Your task to perform on an android device: turn off smart reply in the gmail app Image 0: 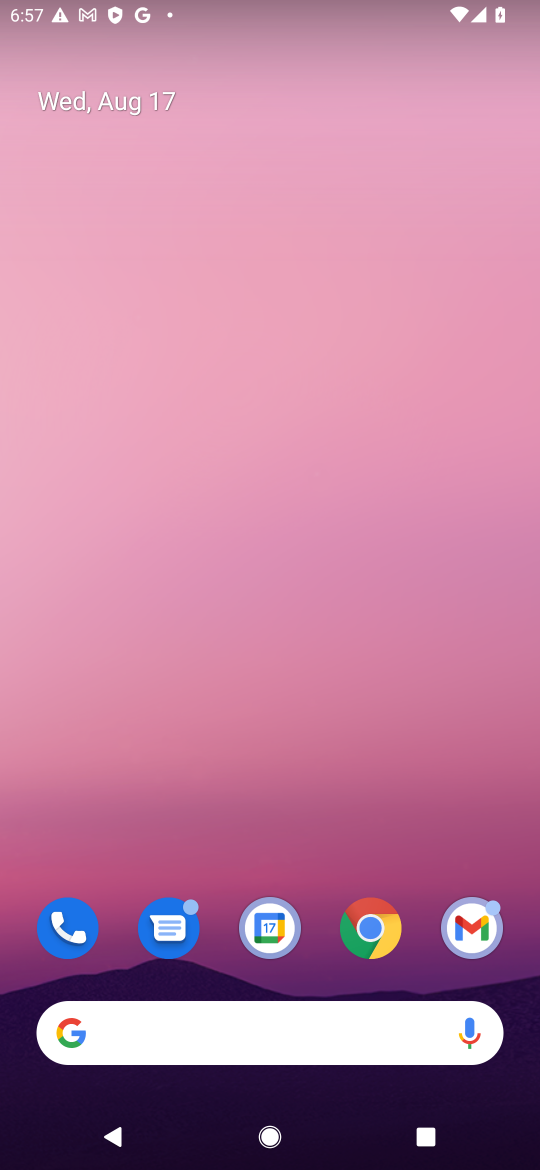
Step 0: click (502, 924)
Your task to perform on an android device: turn off smart reply in the gmail app Image 1: 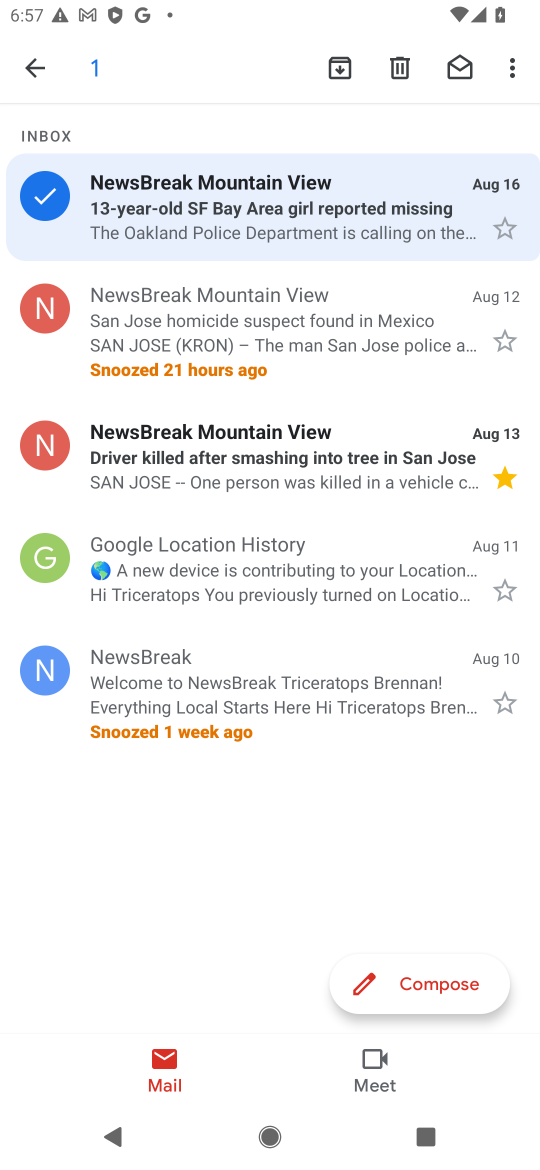
Step 1: click (45, 64)
Your task to perform on an android device: turn off smart reply in the gmail app Image 2: 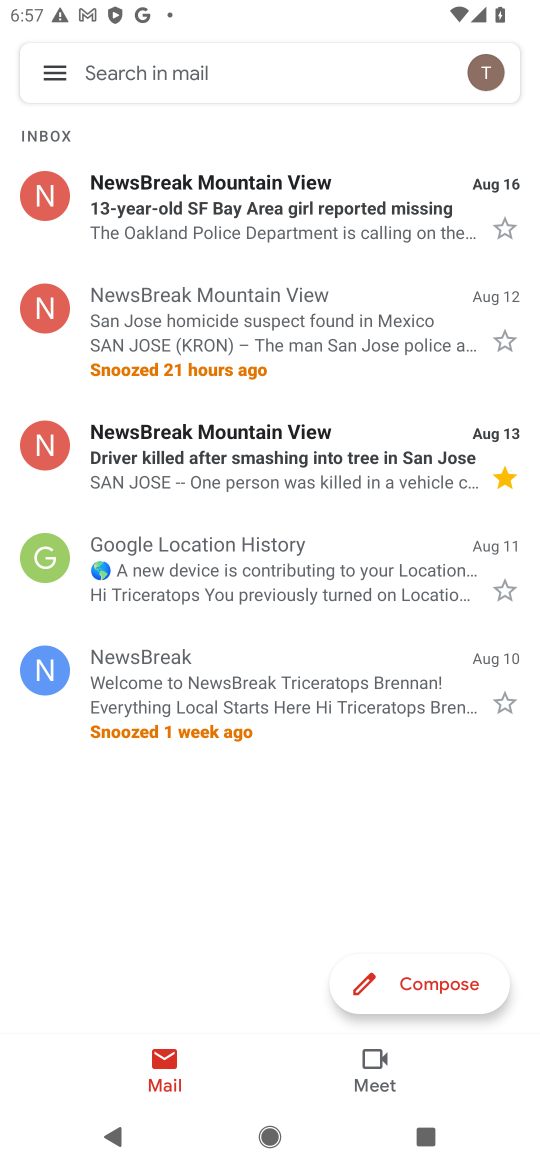
Step 2: click (45, 64)
Your task to perform on an android device: turn off smart reply in the gmail app Image 3: 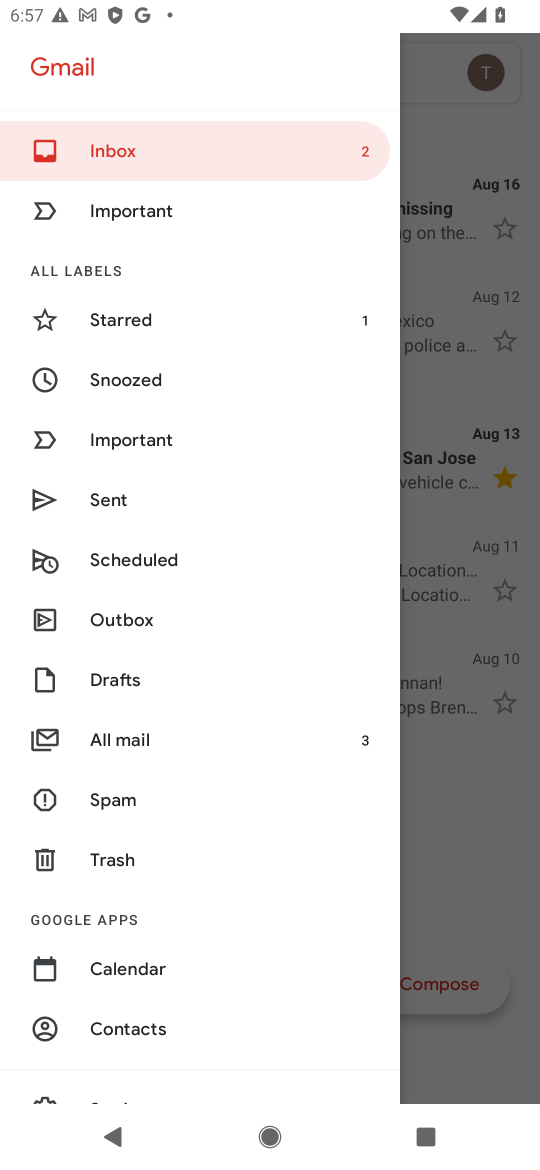
Step 3: drag from (164, 957) to (173, 425)
Your task to perform on an android device: turn off smart reply in the gmail app Image 4: 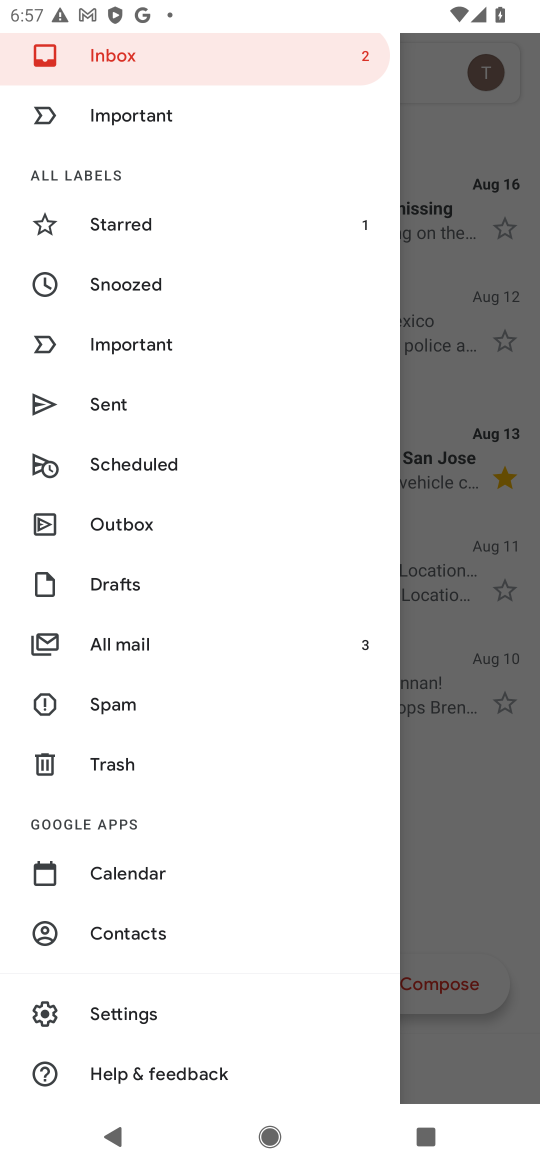
Step 4: click (114, 1005)
Your task to perform on an android device: turn off smart reply in the gmail app Image 5: 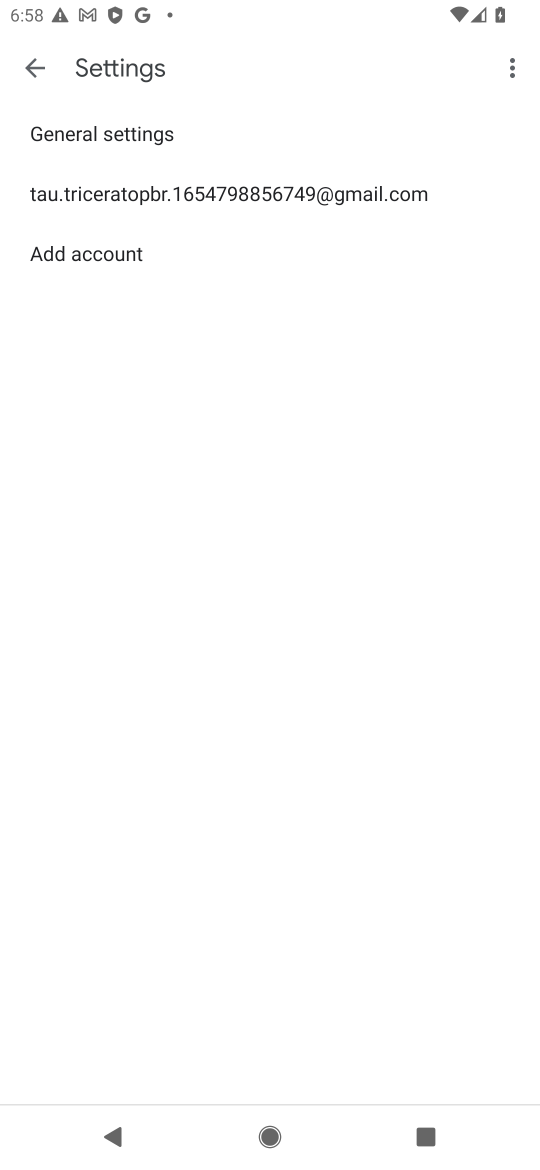
Step 5: click (198, 186)
Your task to perform on an android device: turn off smart reply in the gmail app Image 6: 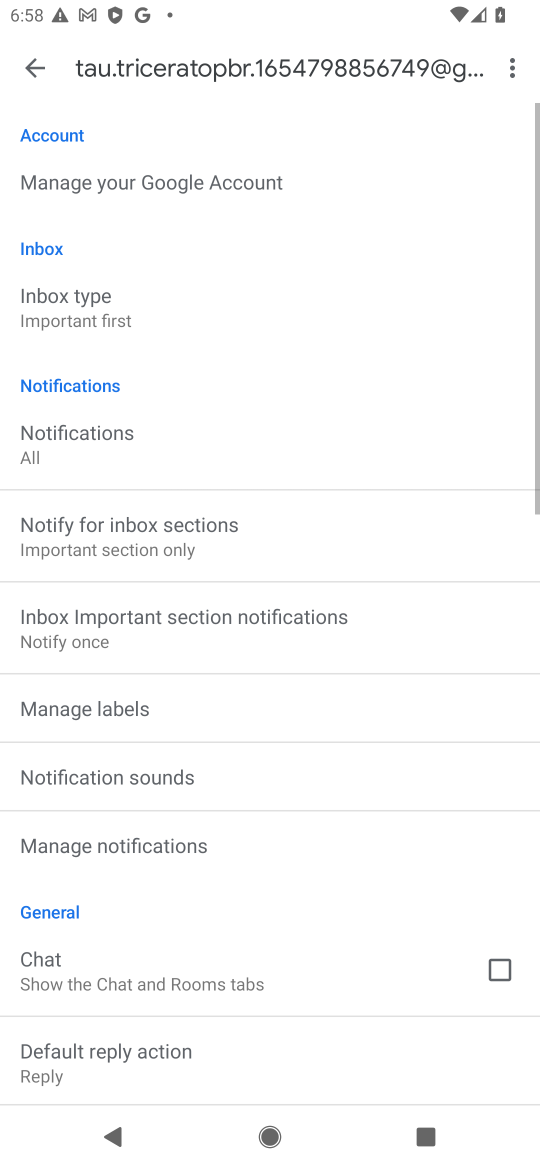
Step 6: drag from (288, 1001) to (307, 16)
Your task to perform on an android device: turn off smart reply in the gmail app Image 7: 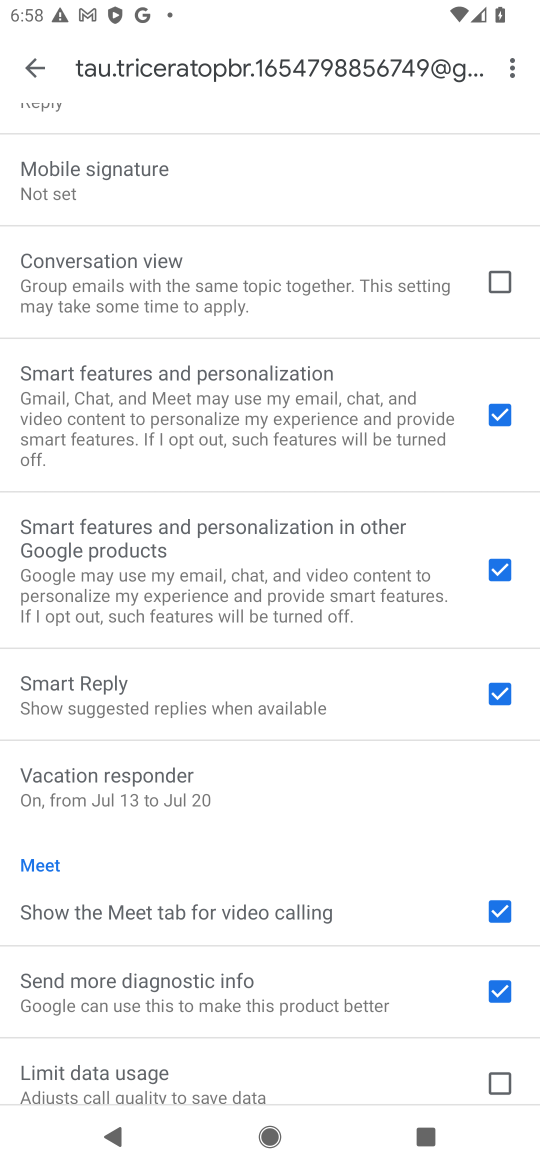
Step 7: click (497, 686)
Your task to perform on an android device: turn off smart reply in the gmail app Image 8: 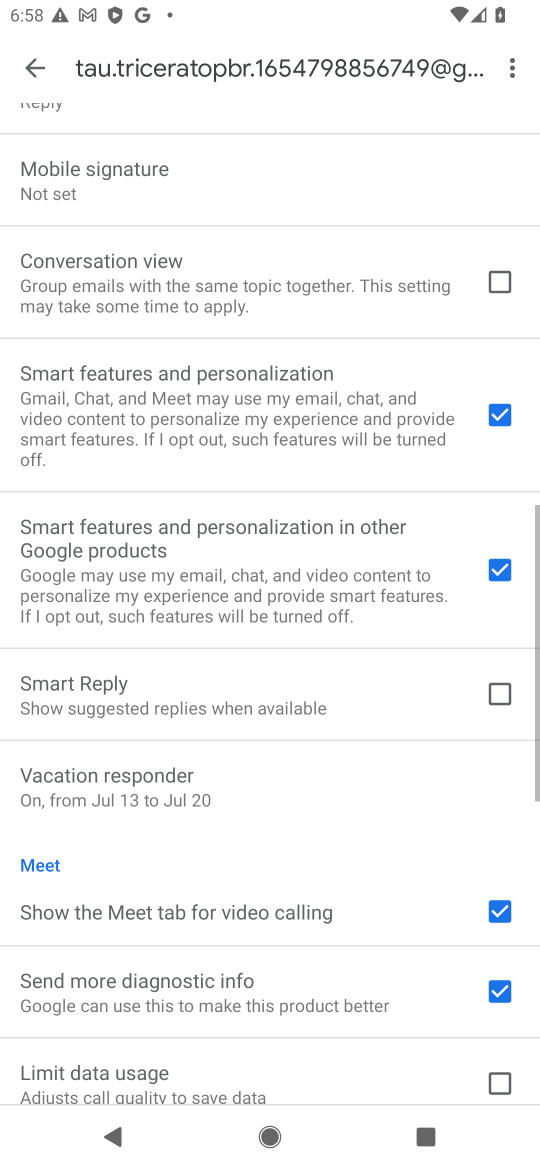
Step 8: task complete